Your task to perform on an android device: Go to network settings Image 0: 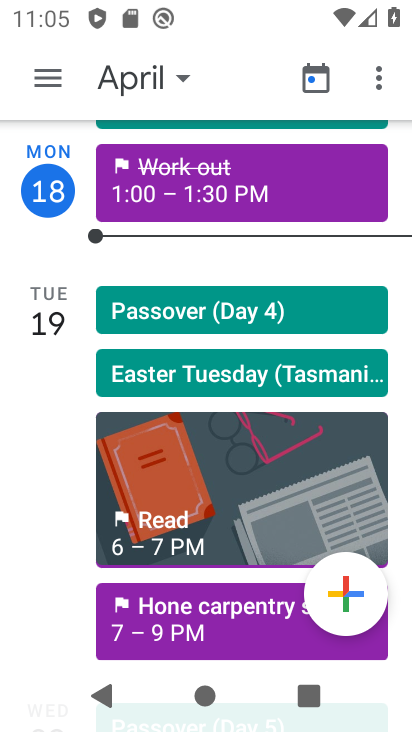
Step 0: press home button
Your task to perform on an android device: Go to network settings Image 1: 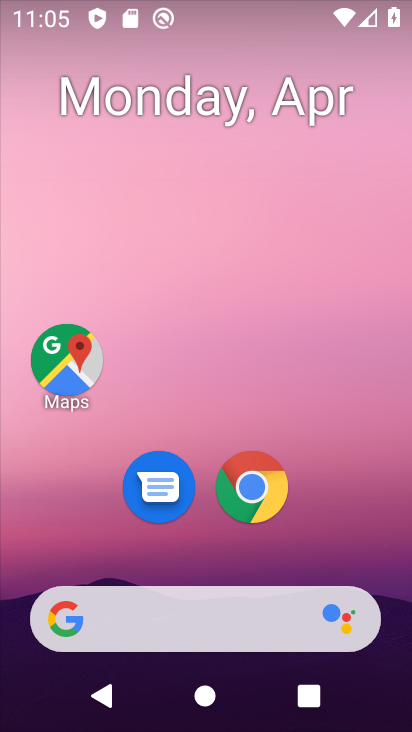
Step 1: drag from (369, 544) to (285, 159)
Your task to perform on an android device: Go to network settings Image 2: 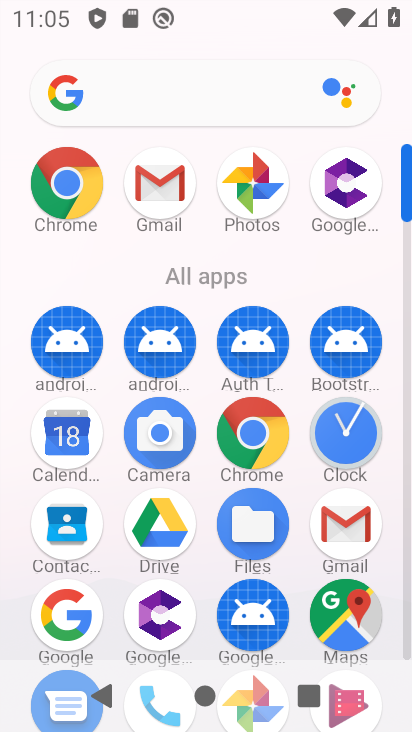
Step 2: click (409, 651)
Your task to perform on an android device: Go to network settings Image 3: 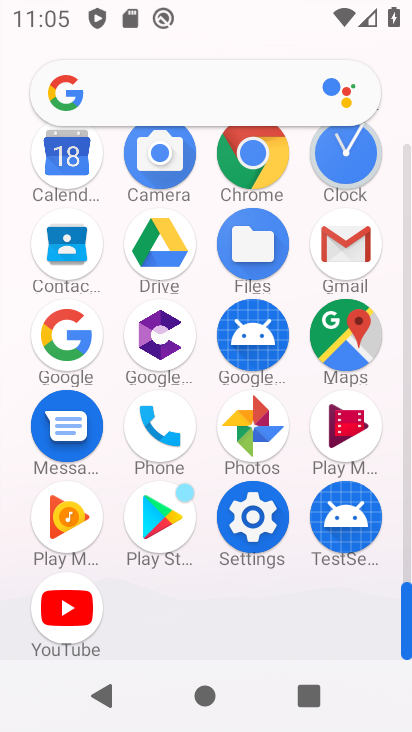
Step 3: click (268, 520)
Your task to perform on an android device: Go to network settings Image 4: 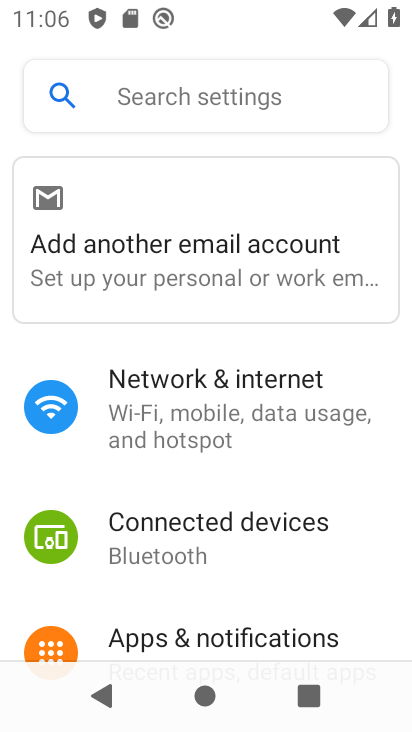
Step 4: click (272, 420)
Your task to perform on an android device: Go to network settings Image 5: 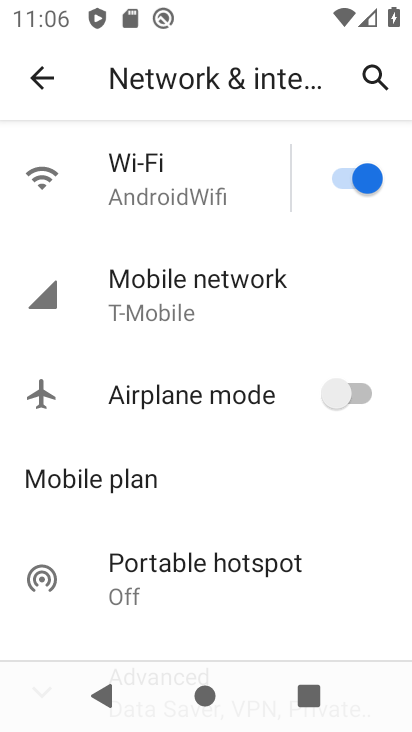
Step 5: task complete